Your task to perform on an android device: open chrome privacy settings Image 0: 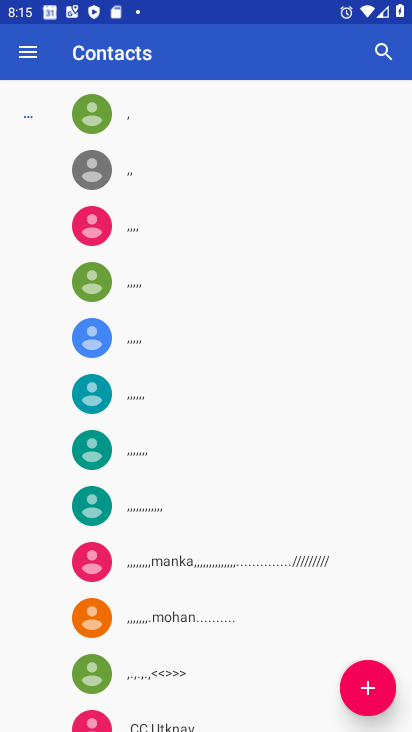
Step 0: press home button
Your task to perform on an android device: open chrome privacy settings Image 1: 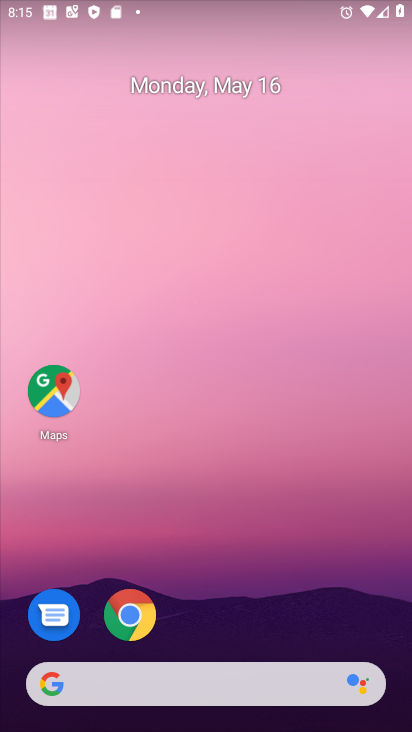
Step 1: click (135, 614)
Your task to perform on an android device: open chrome privacy settings Image 2: 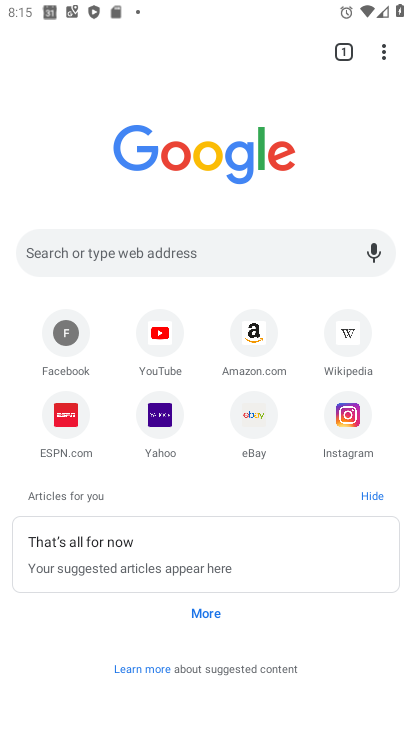
Step 2: click (391, 55)
Your task to perform on an android device: open chrome privacy settings Image 3: 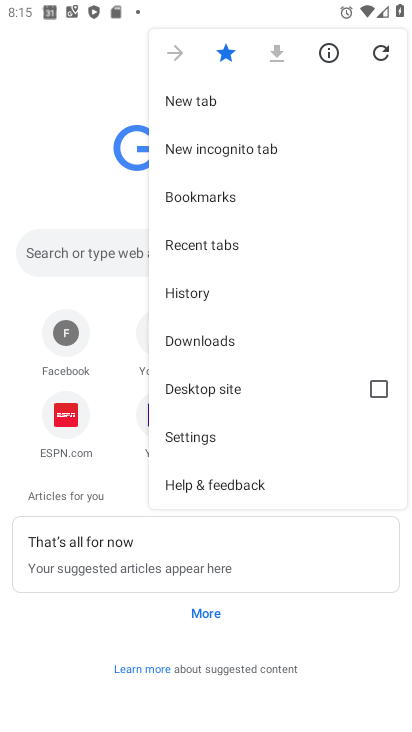
Step 3: click (207, 445)
Your task to perform on an android device: open chrome privacy settings Image 4: 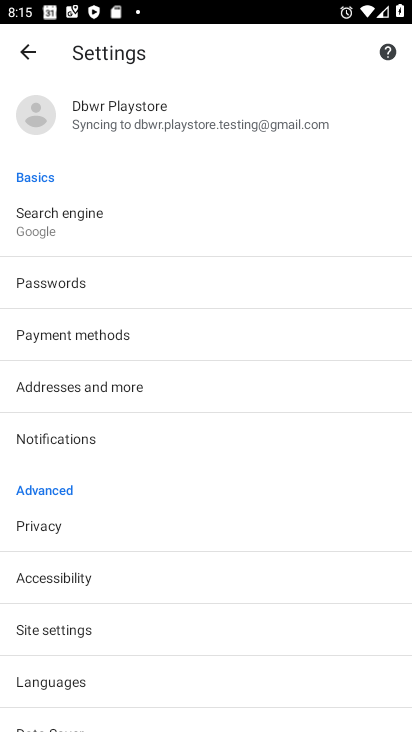
Step 4: click (100, 538)
Your task to perform on an android device: open chrome privacy settings Image 5: 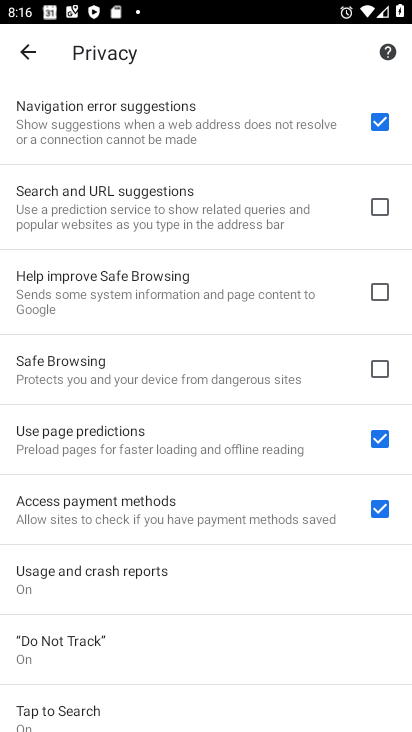
Step 5: task complete